Your task to perform on an android device: allow cookies in the chrome app Image 0: 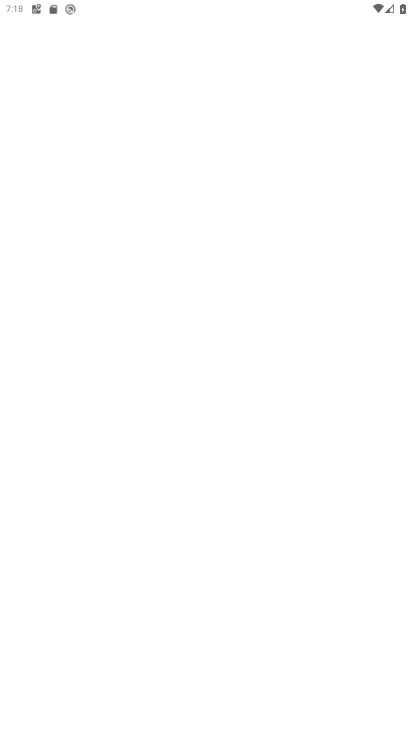
Step 0: press home button
Your task to perform on an android device: allow cookies in the chrome app Image 1: 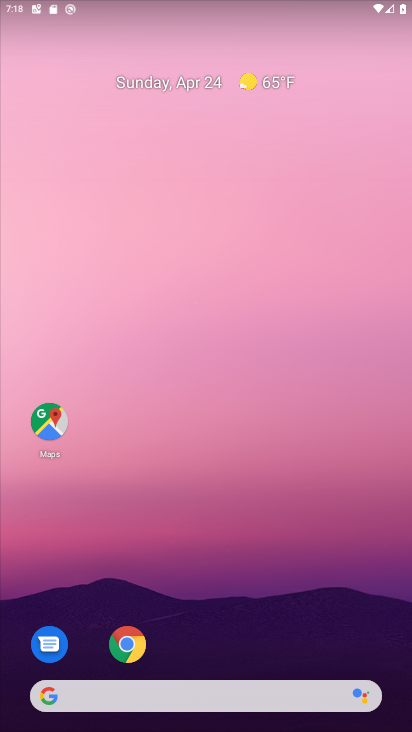
Step 1: drag from (233, 666) to (223, 63)
Your task to perform on an android device: allow cookies in the chrome app Image 2: 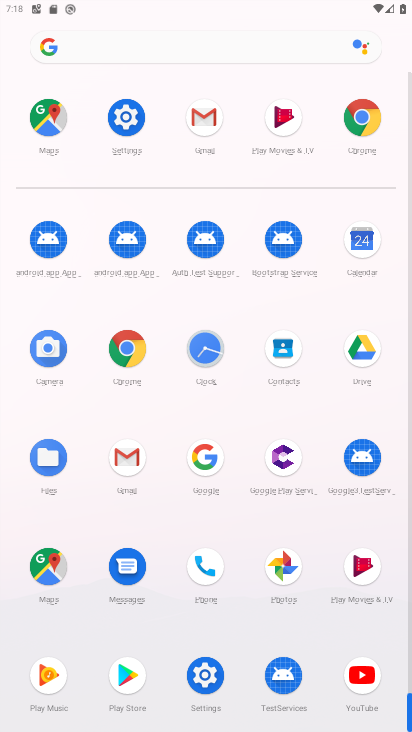
Step 2: click (126, 344)
Your task to perform on an android device: allow cookies in the chrome app Image 3: 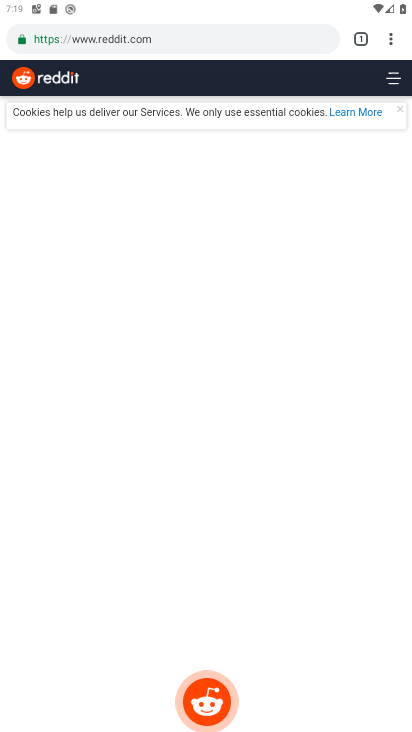
Step 3: click (389, 35)
Your task to perform on an android device: allow cookies in the chrome app Image 4: 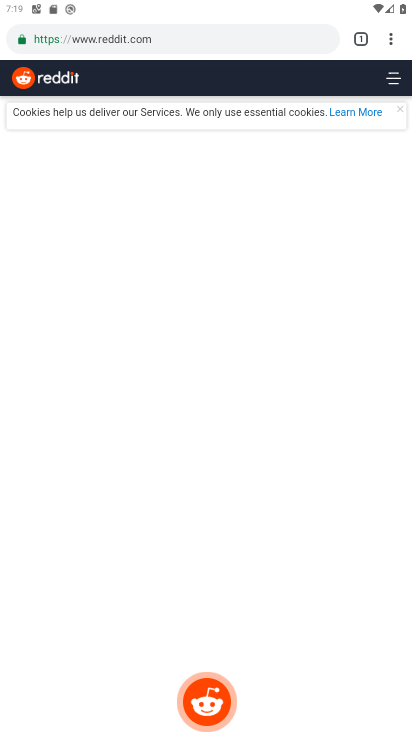
Step 4: click (389, 35)
Your task to perform on an android device: allow cookies in the chrome app Image 5: 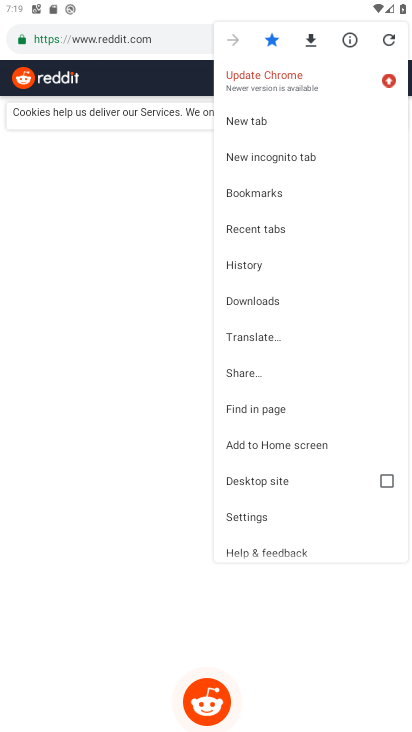
Step 5: click (265, 261)
Your task to perform on an android device: allow cookies in the chrome app Image 6: 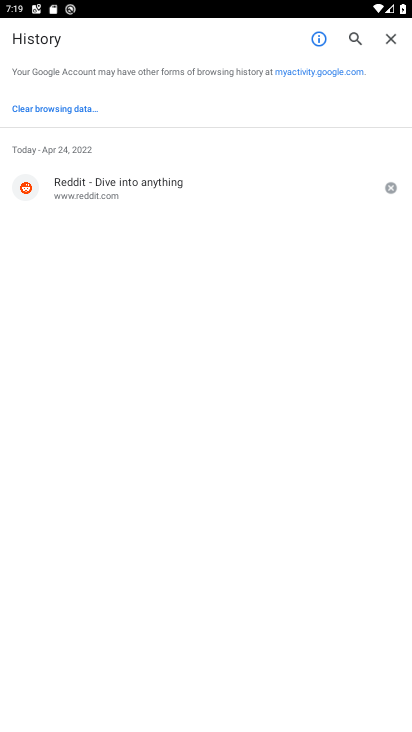
Step 6: click (387, 36)
Your task to perform on an android device: allow cookies in the chrome app Image 7: 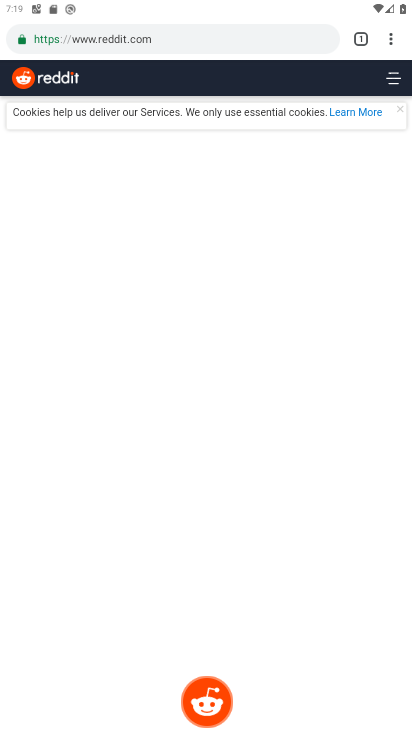
Step 7: click (389, 34)
Your task to perform on an android device: allow cookies in the chrome app Image 8: 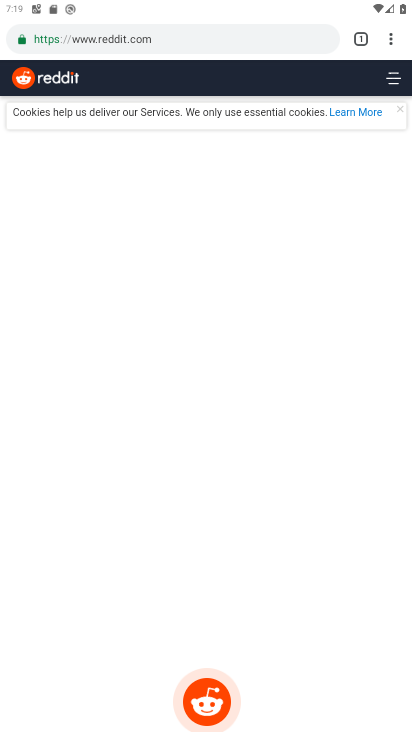
Step 8: click (389, 41)
Your task to perform on an android device: allow cookies in the chrome app Image 9: 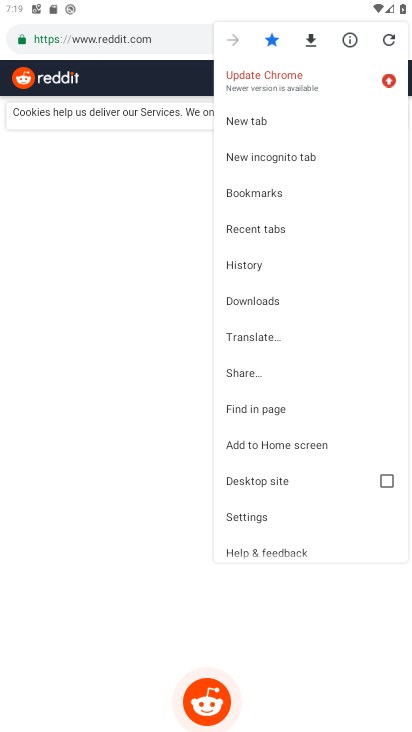
Step 9: click (269, 514)
Your task to perform on an android device: allow cookies in the chrome app Image 10: 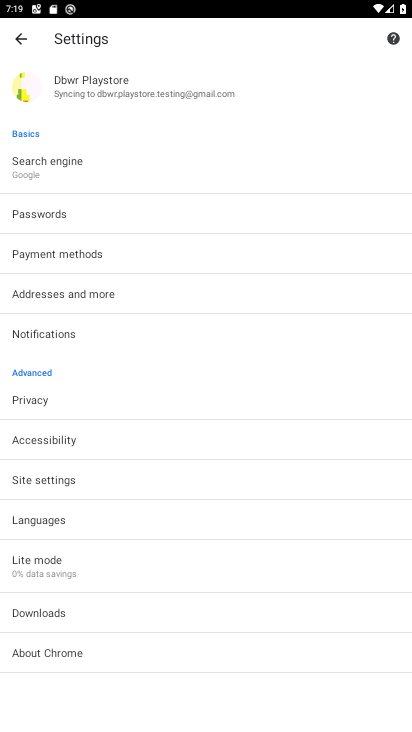
Step 10: click (83, 475)
Your task to perform on an android device: allow cookies in the chrome app Image 11: 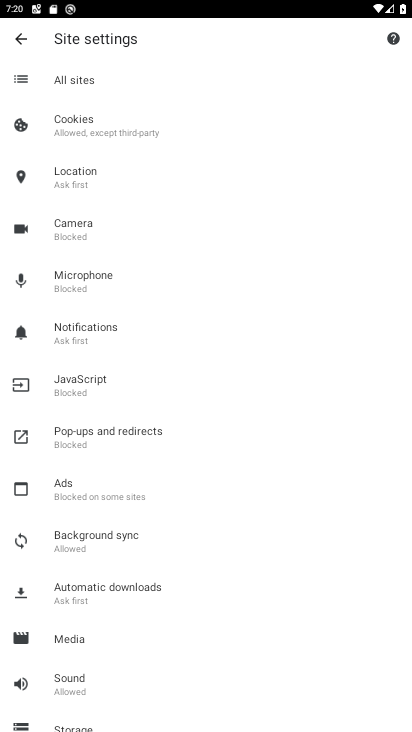
Step 11: click (123, 122)
Your task to perform on an android device: allow cookies in the chrome app Image 12: 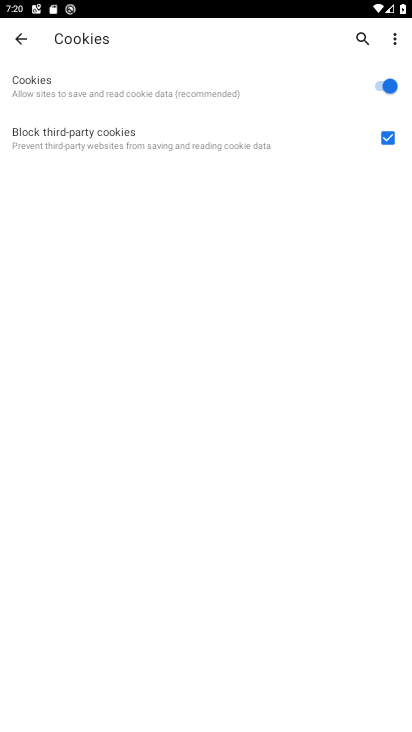
Step 12: task complete